Your task to perform on an android device: Go to settings Image 0: 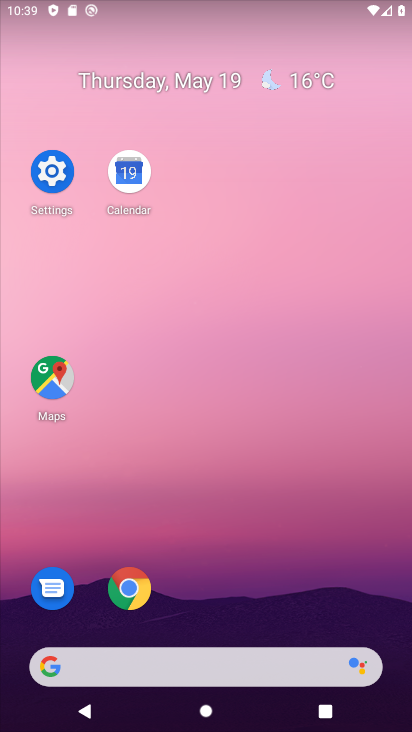
Step 0: click (48, 182)
Your task to perform on an android device: Go to settings Image 1: 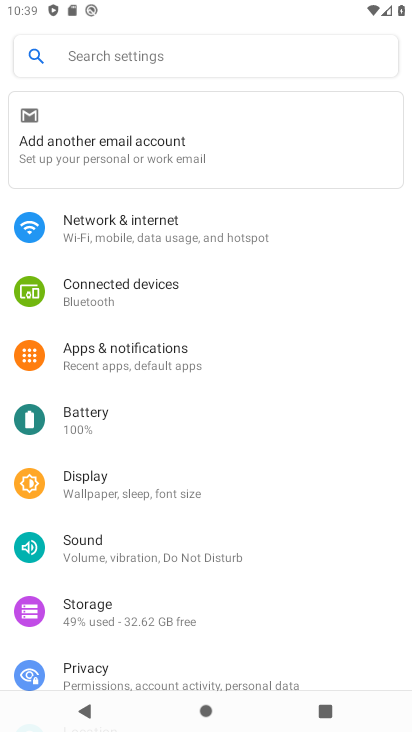
Step 1: task complete